Your task to perform on an android device: turn on notifications settings in the gmail app Image 0: 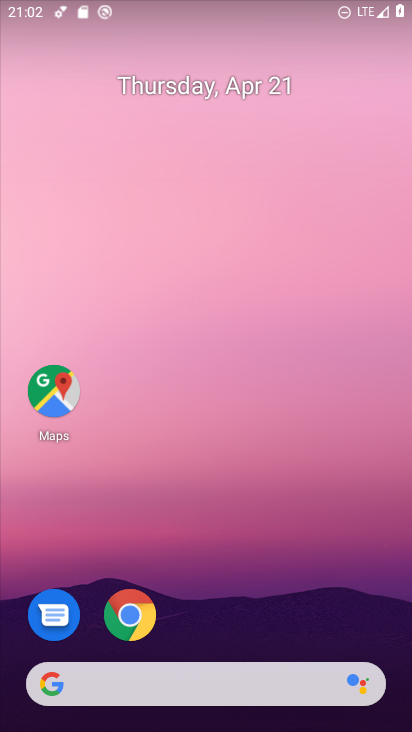
Step 0: click (206, 324)
Your task to perform on an android device: turn on notifications settings in the gmail app Image 1: 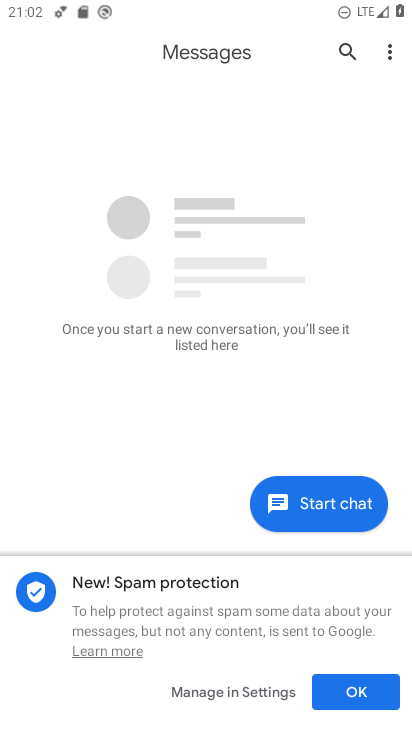
Step 1: click (302, 207)
Your task to perform on an android device: turn on notifications settings in the gmail app Image 2: 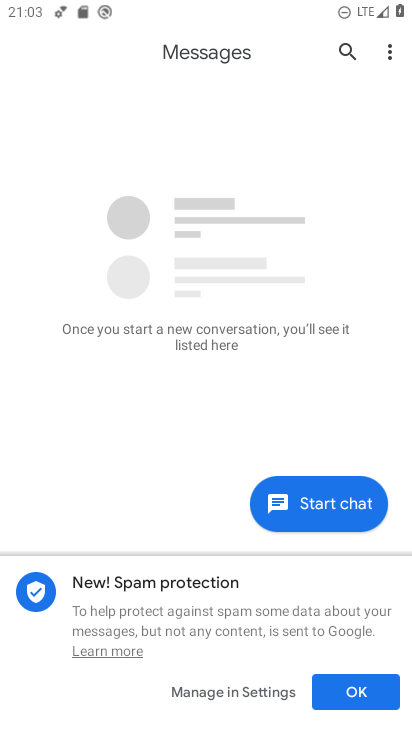
Step 2: press home button
Your task to perform on an android device: turn on notifications settings in the gmail app Image 3: 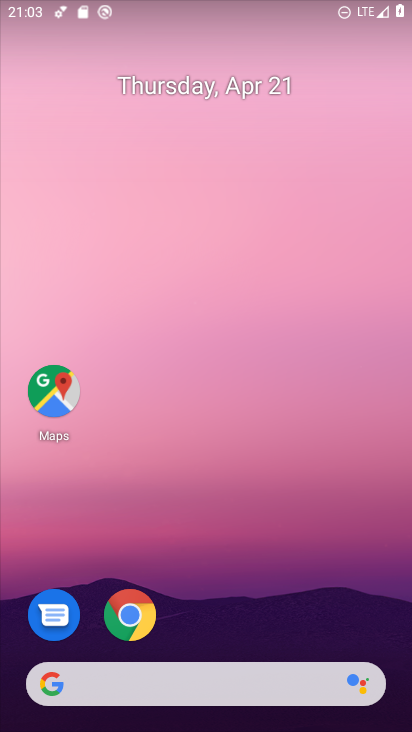
Step 3: drag from (219, 641) to (304, 138)
Your task to perform on an android device: turn on notifications settings in the gmail app Image 4: 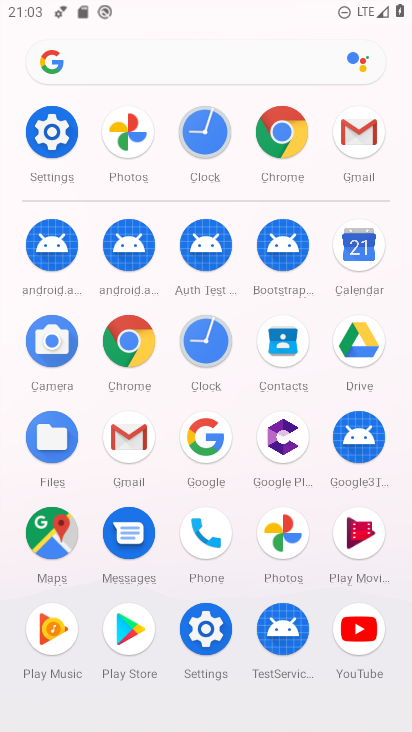
Step 4: click (151, 430)
Your task to perform on an android device: turn on notifications settings in the gmail app Image 5: 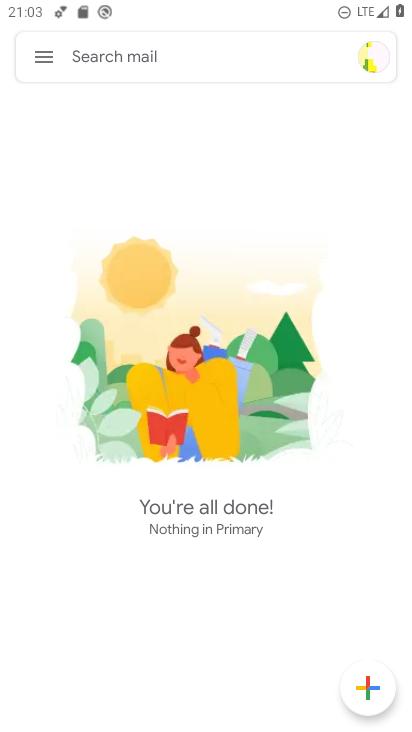
Step 5: drag from (230, 590) to (267, 407)
Your task to perform on an android device: turn on notifications settings in the gmail app Image 6: 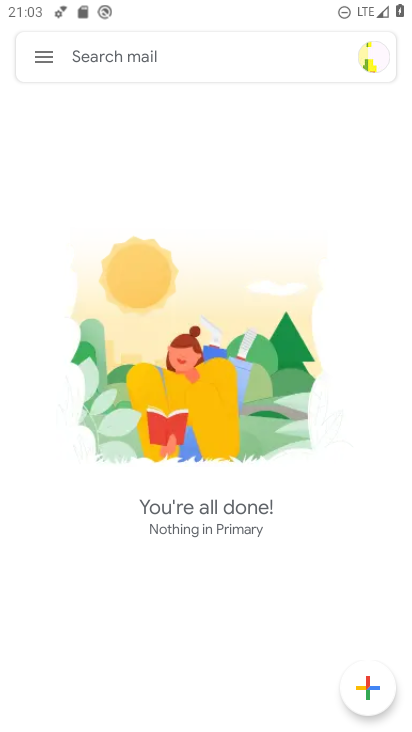
Step 6: click (44, 63)
Your task to perform on an android device: turn on notifications settings in the gmail app Image 7: 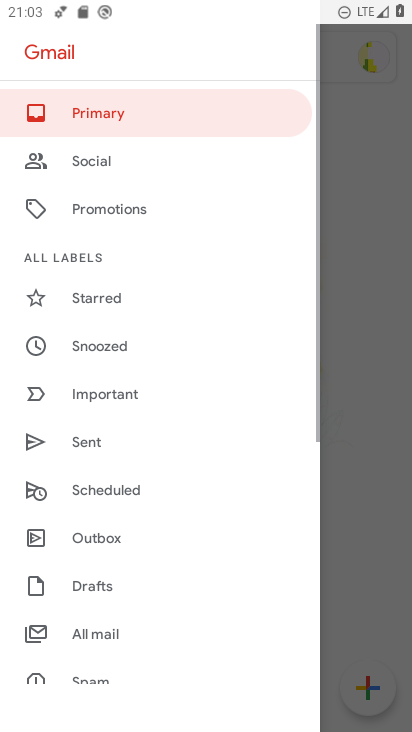
Step 7: drag from (206, 553) to (248, 220)
Your task to perform on an android device: turn on notifications settings in the gmail app Image 8: 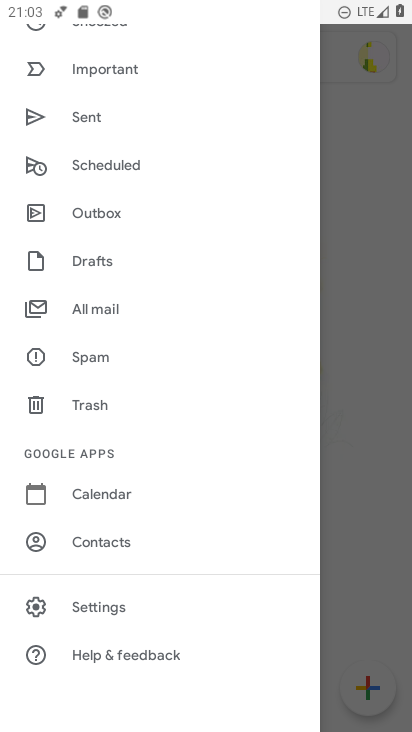
Step 8: click (116, 603)
Your task to perform on an android device: turn on notifications settings in the gmail app Image 9: 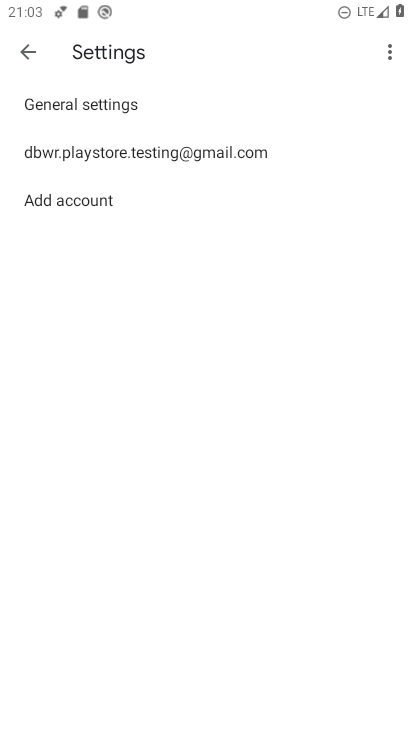
Step 9: click (122, 140)
Your task to perform on an android device: turn on notifications settings in the gmail app Image 10: 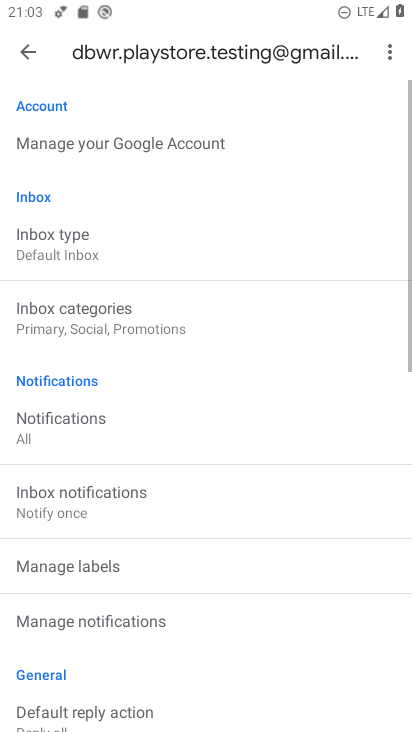
Step 10: click (221, 295)
Your task to perform on an android device: turn on notifications settings in the gmail app Image 11: 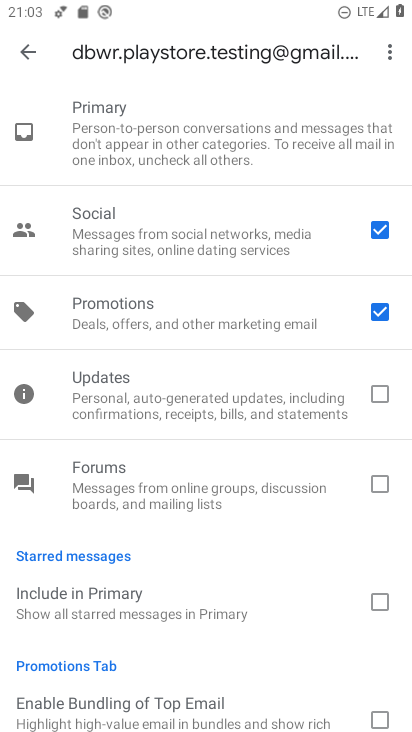
Step 11: drag from (288, 433) to (303, 713)
Your task to perform on an android device: turn on notifications settings in the gmail app Image 12: 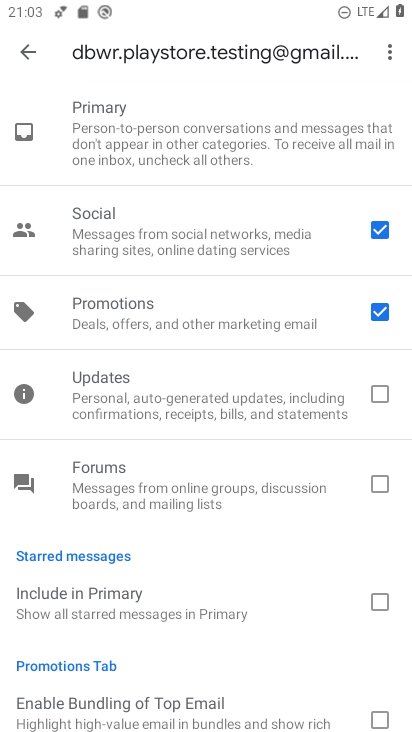
Step 12: drag from (230, 257) to (302, 588)
Your task to perform on an android device: turn on notifications settings in the gmail app Image 13: 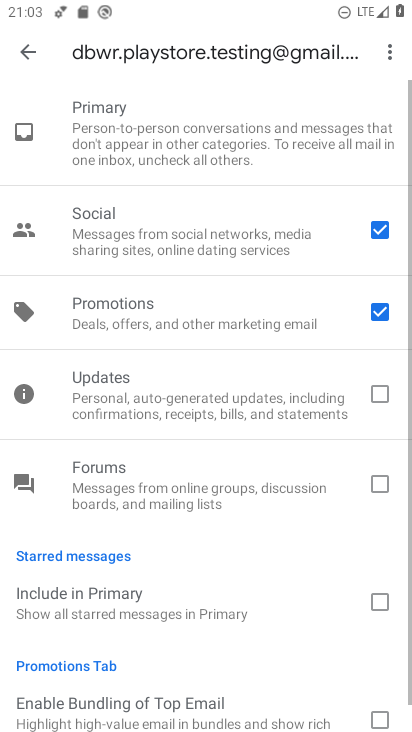
Step 13: drag from (181, 150) to (229, 619)
Your task to perform on an android device: turn on notifications settings in the gmail app Image 14: 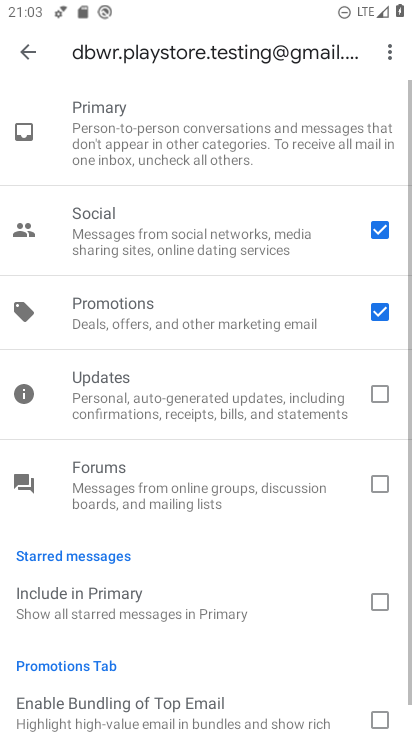
Step 14: drag from (210, 523) to (274, 199)
Your task to perform on an android device: turn on notifications settings in the gmail app Image 15: 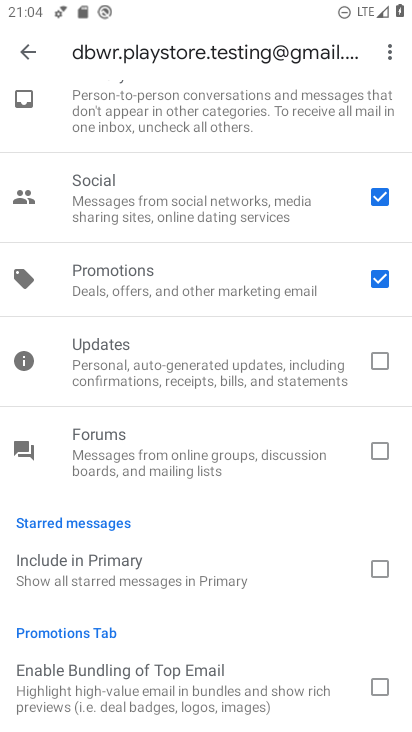
Step 15: drag from (229, 234) to (274, 574)
Your task to perform on an android device: turn on notifications settings in the gmail app Image 16: 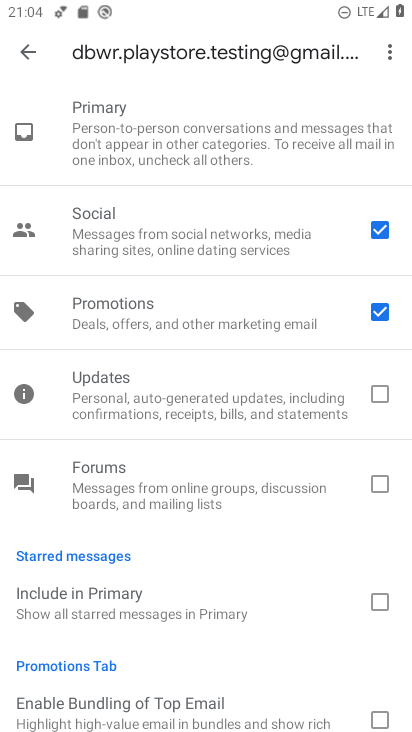
Step 16: click (41, 49)
Your task to perform on an android device: turn on notifications settings in the gmail app Image 17: 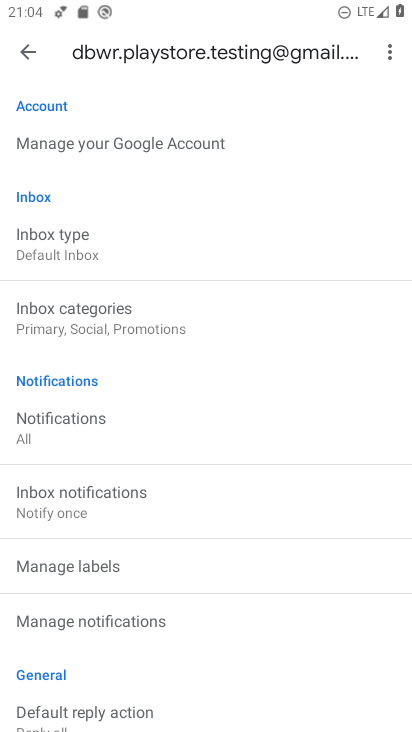
Step 17: click (146, 628)
Your task to perform on an android device: turn on notifications settings in the gmail app Image 18: 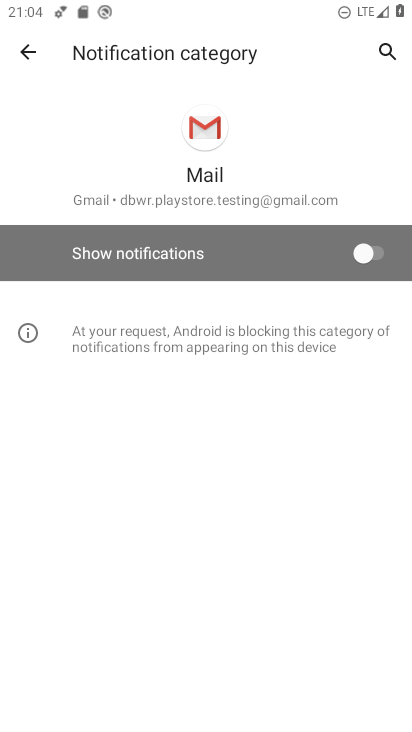
Step 18: click (298, 249)
Your task to perform on an android device: turn on notifications settings in the gmail app Image 19: 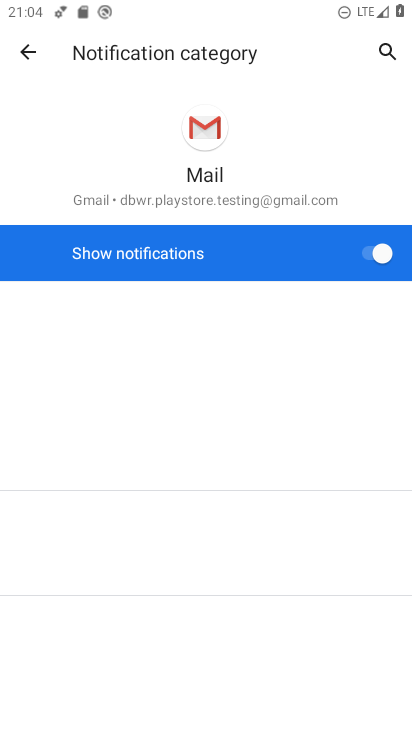
Step 19: task complete